Your task to perform on an android device: What's the weather going to be this weekend? Image 0: 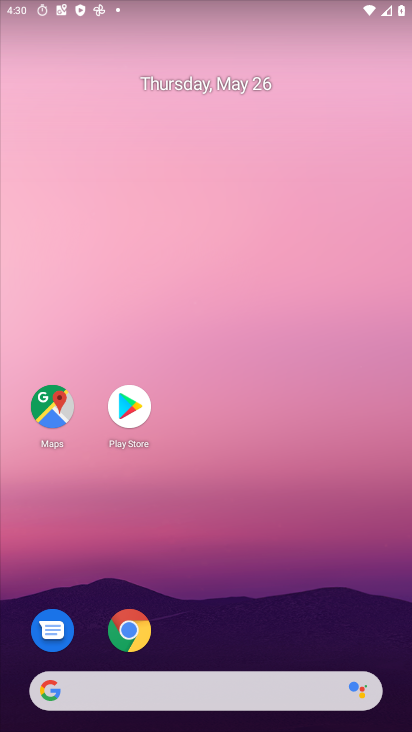
Step 0: click (220, 695)
Your task to perform on an android device: What's the weather going to be this weekend? Image 1: 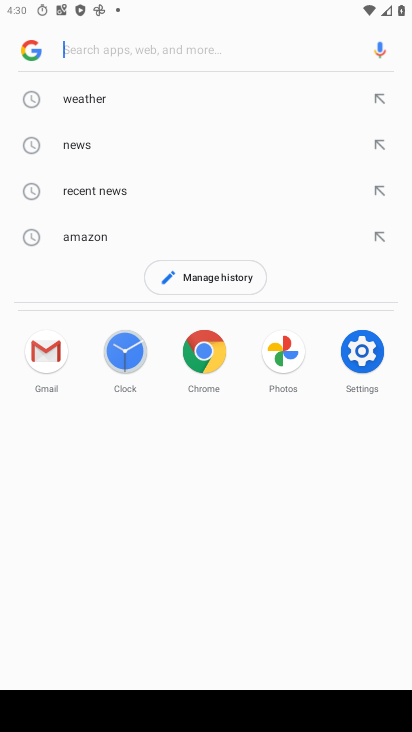
Step 1: click (199, 96)
Your task to perform on an android device: What's the weather going to be this weekend? Image 2: 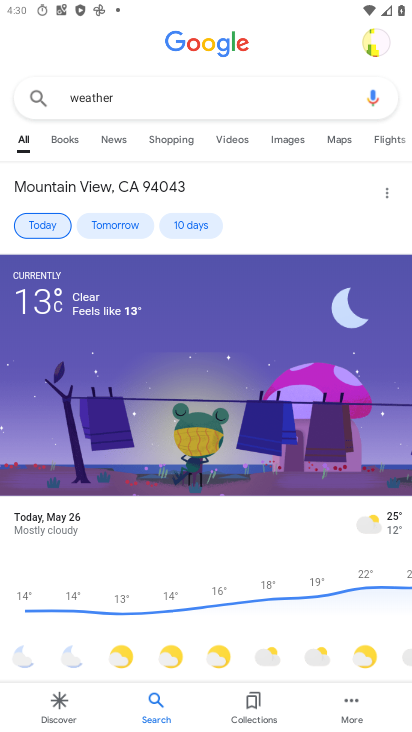
Step 2: click (181, 227)
Your task to perform on an android device: What's the weather going to be this weekend? Image 3: 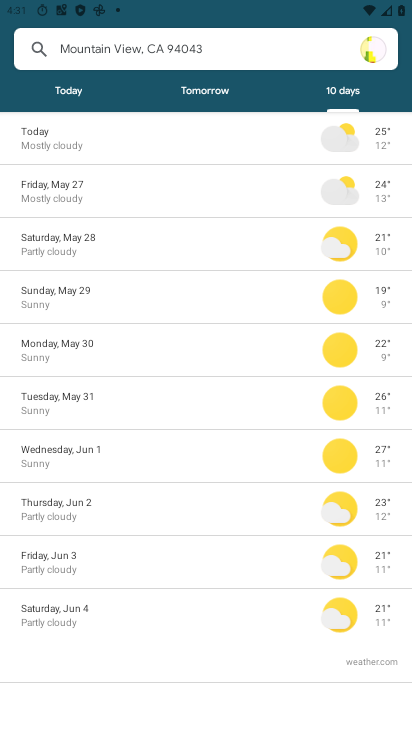
Step 3: task complete